Your task to perform on an android device: change notifications settings Image 0: 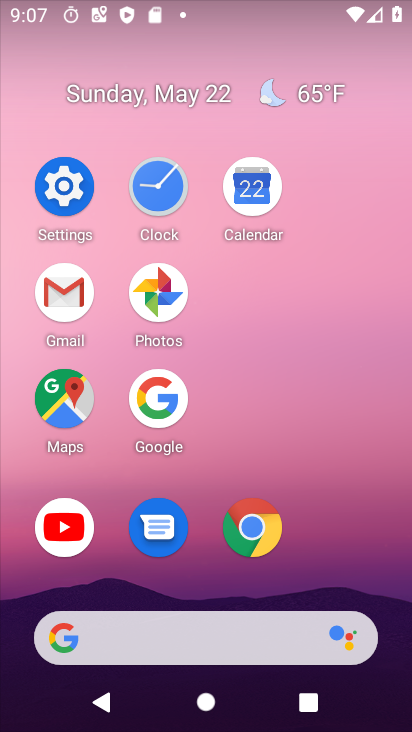
Step 0: click (39, 198)
Your task to perform on an android device: change notifications settings Image 1: 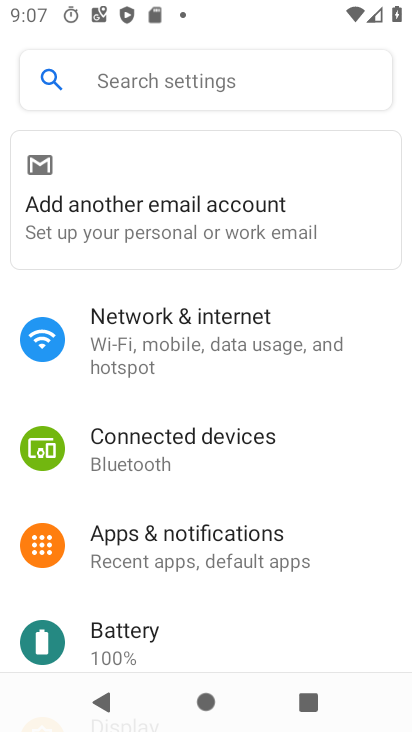
Step 1: click (231, 522)
Your task to perform on an android device: change notifications settings Image 2: 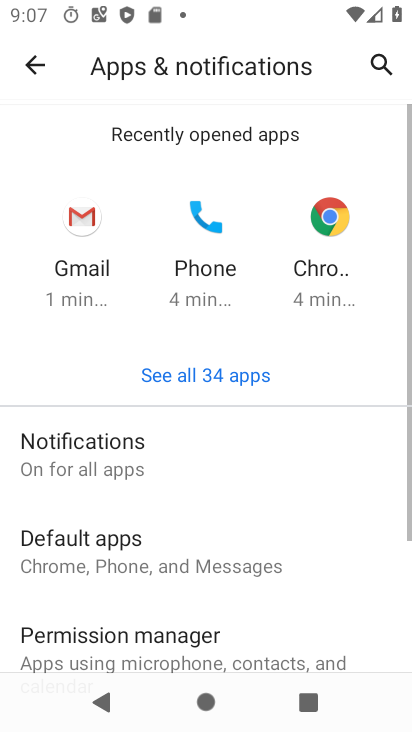
Step 2: task complete